Your task to perform on an android device: open app "Mercado Libre" (install if not already installed) and go to login screen Image 0: 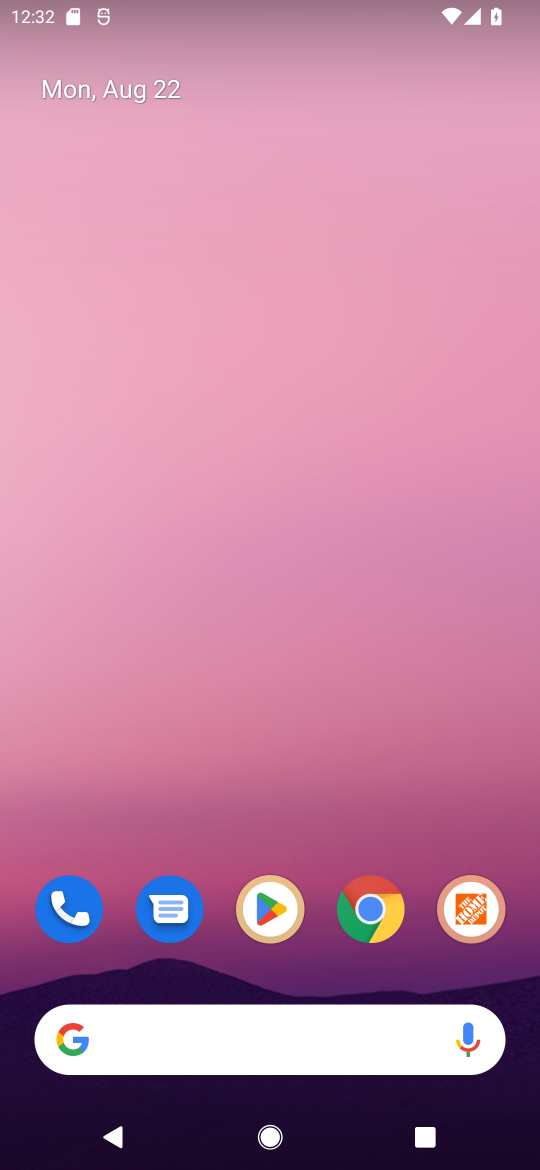
Step 0: click (270, 913)
Your task to perform on an android device: open app "Mercado Libre" (install if not already installed) and go to login screen Image 1: 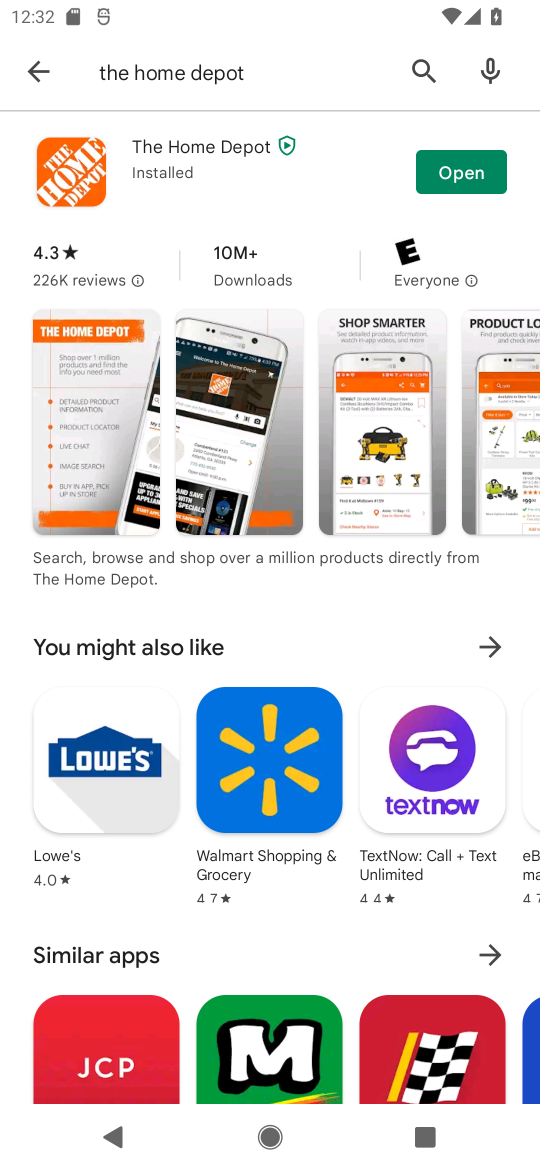
Step 1: click (409, 70)
Your task to perform on an android device: open app "Mercado Libre" (install if not already installed) and go to login screen Image 2: 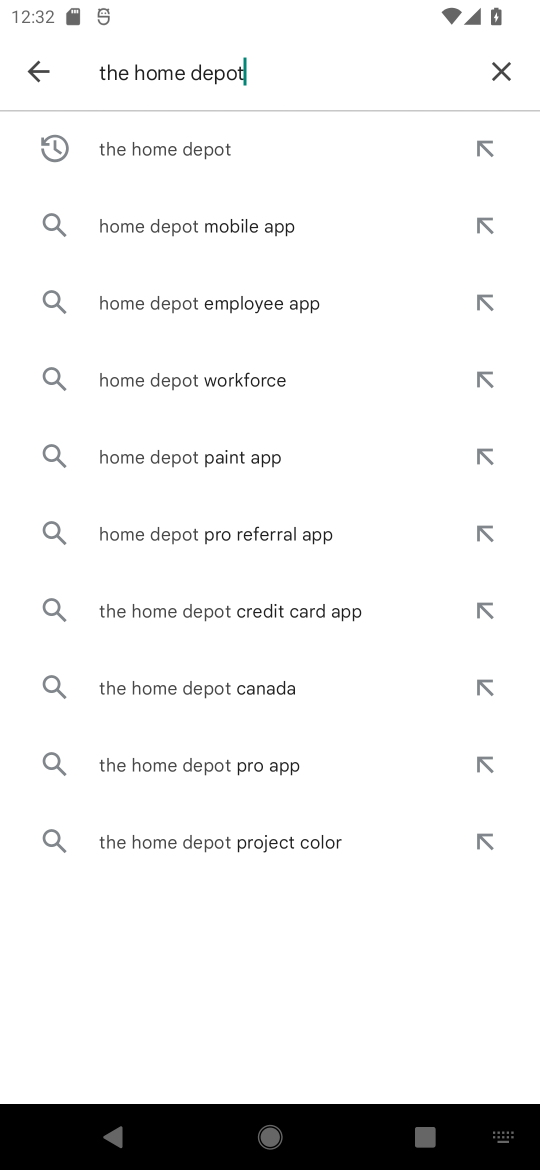
Step 2: click (493, 65)
Your task to perform on an android device: open app "Mercado Libre" (install if not already installed) and go to login screen Image 3: 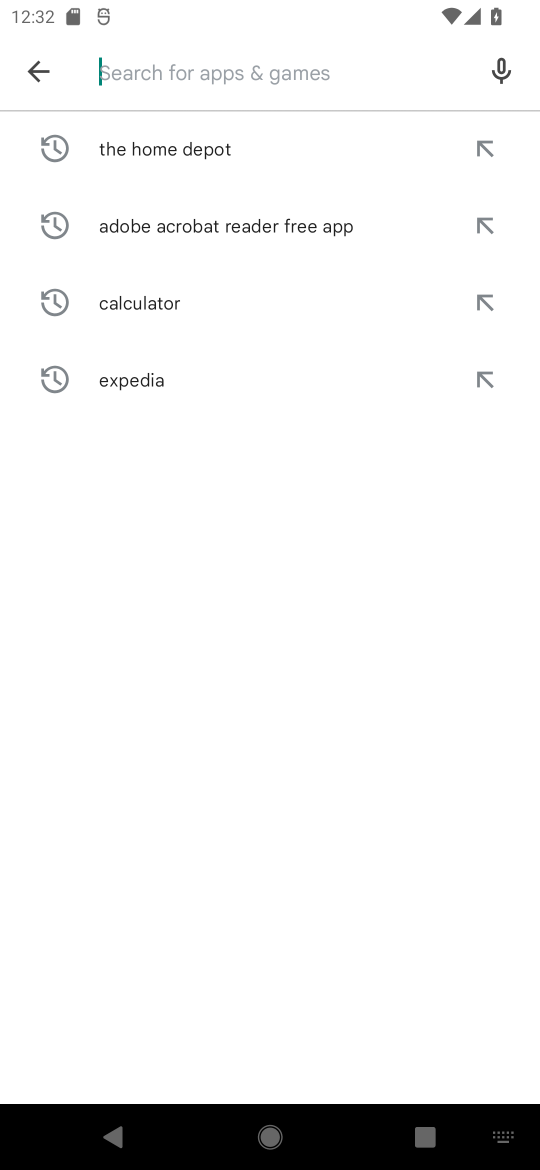
Step 3: click (181, 69)
Your task to perform on an android device: open app "Mercado Libre" (install if not already installed) and go to login screen Image 4: 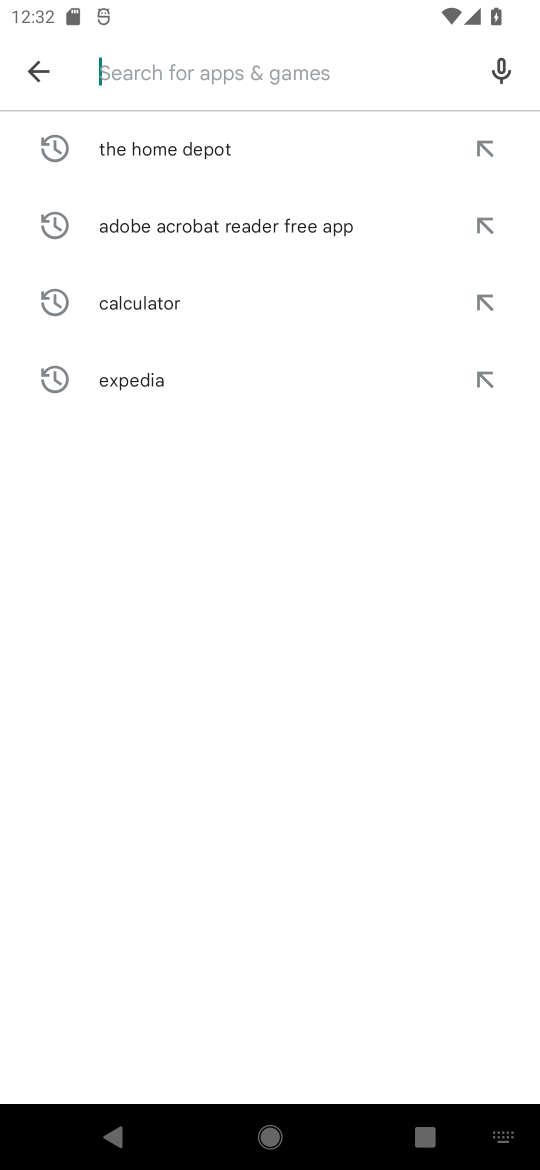
Step 4: type "mercado libre"
Your task to perform on an android device: open app "Mercado Libre" (install if not already installed) and go to login screen Image 5: 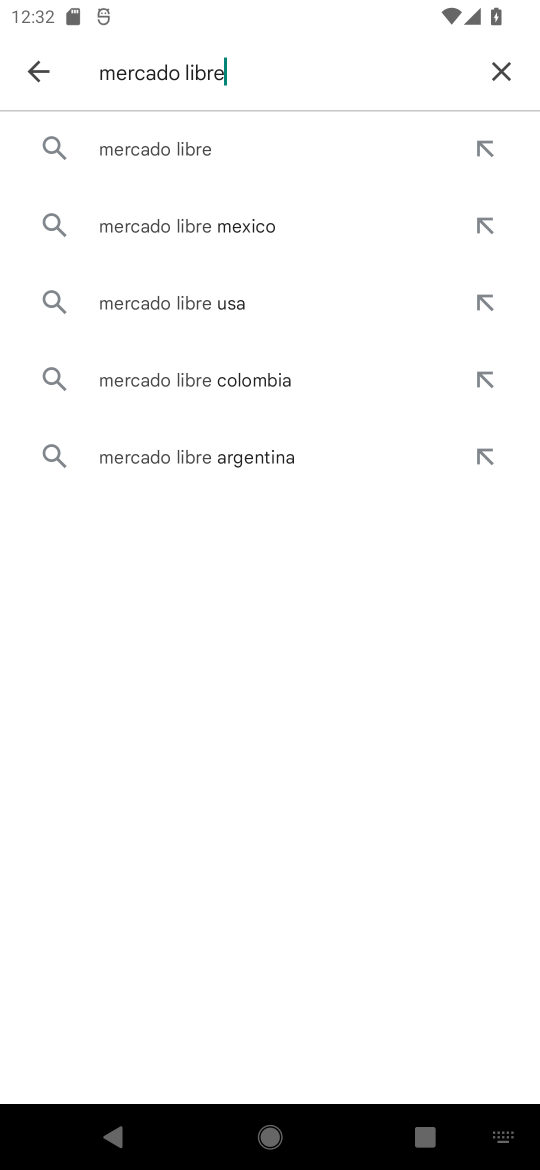
Step 5: click (184, 139)
Your task to perform on an android device: open app "Mercado Libre" (install if not already installed) and go to login screen Image 6: 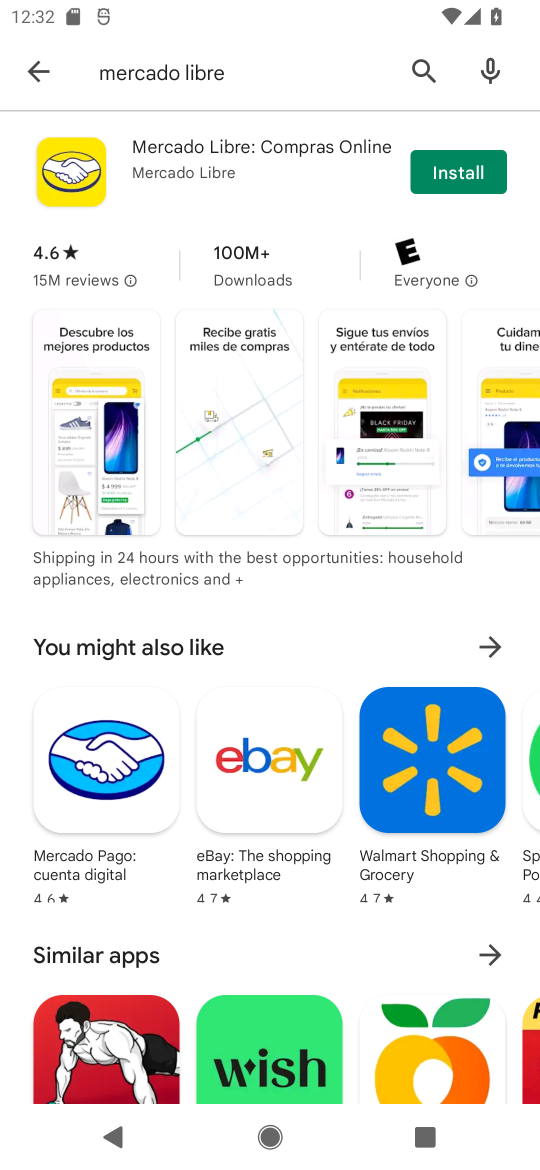
Step 6: click (472, 171)
Your task to perform on an android device: open app "Mercado Libre" (install if not already installed) and go to login screen Image 7: 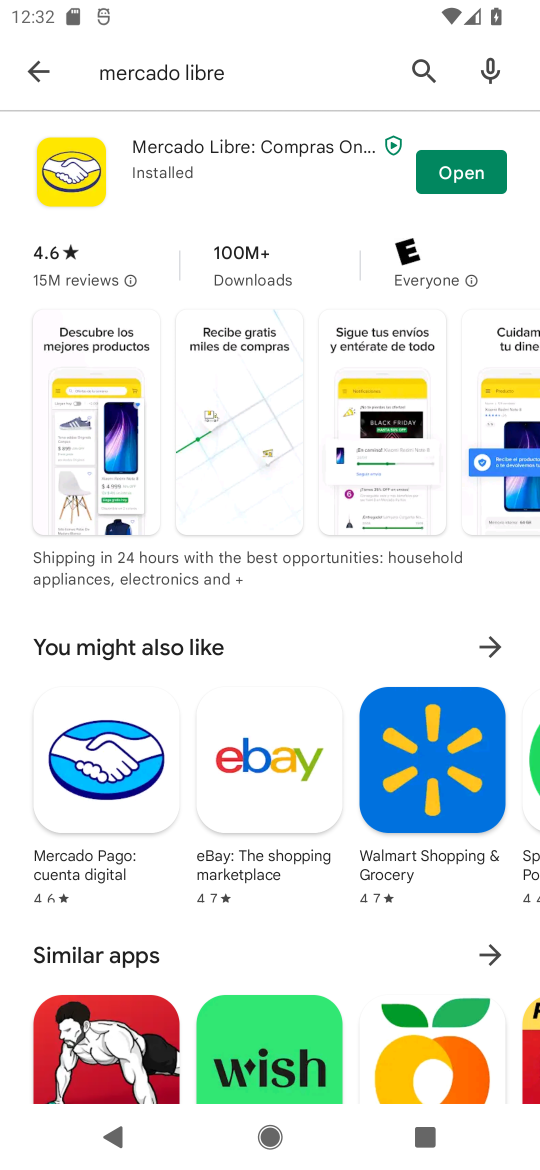
Step 7: click (472, 171)
Your task to perform on an android device: open app "Mercado Libre" (install if not already installed) and go to login screen Image 8: 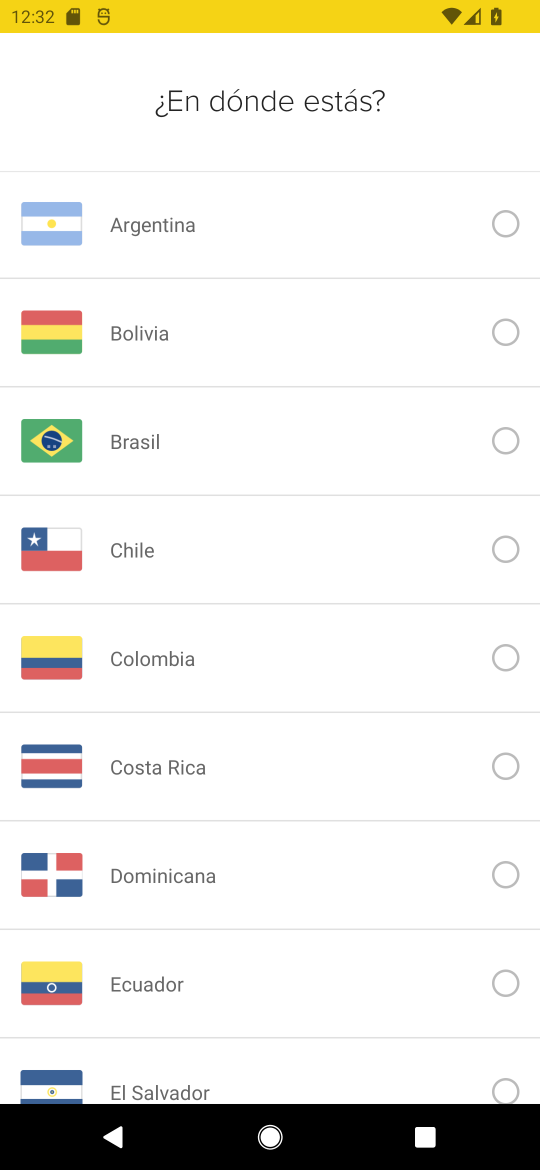
Step 8: task complete